Your task to perform on an android device: turn pop-ups on in chrome Image 0: 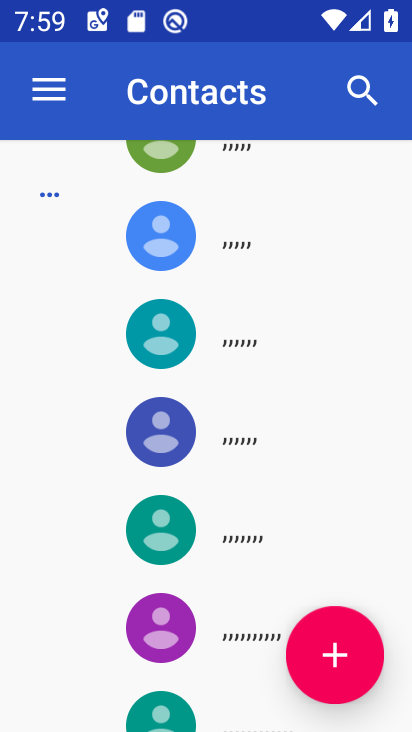
Step 0: press back button
Your task to perform on an android device: turn pop-ups on in chrome Image 1: 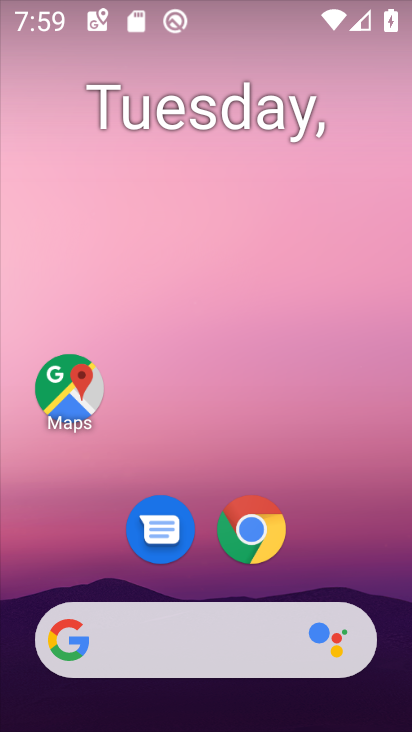
Step 1: click (262, 528)
Your task to perform on an android device: turn pop-ups on in chrome Image 2: 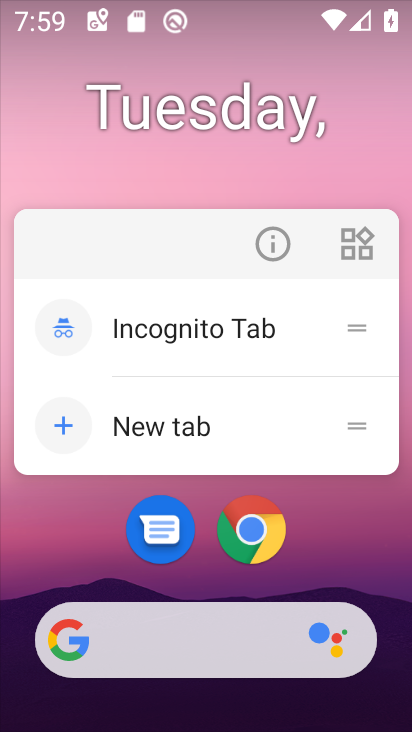
Step 2: click (251, 540)
Your task to perform on an android device: turn pop-ups on in chrome Image 3: 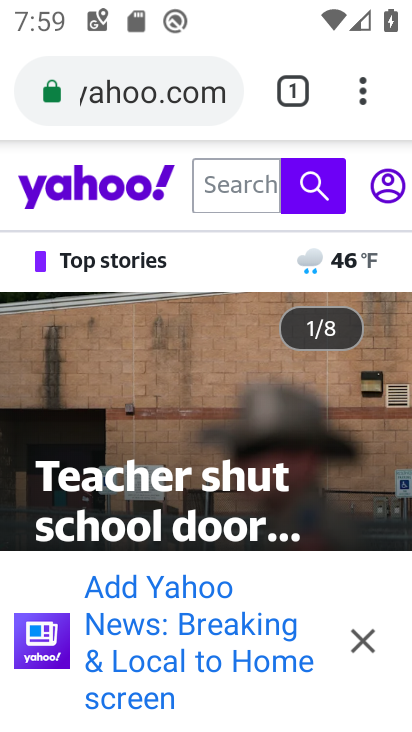
Step 3: drag from (363, 90) to (160, 557)
Your task to perform on an android device: turn pop-ups on in chrome Image 4: 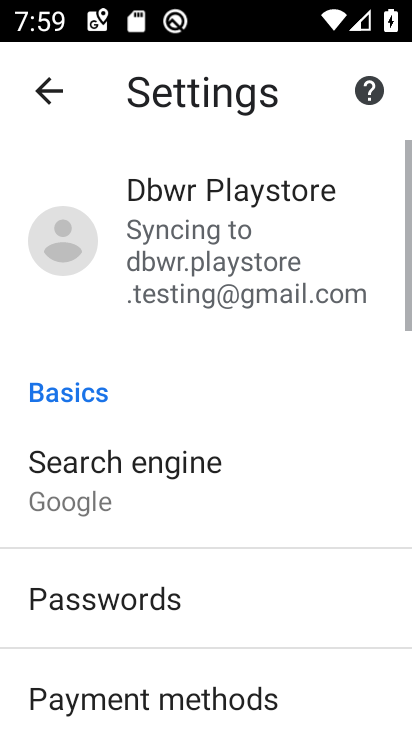
Step 4: drag from (151, 619) to (246, 101)
Your task to perform on an android device: turn pop-ups on in chrome Image 5: 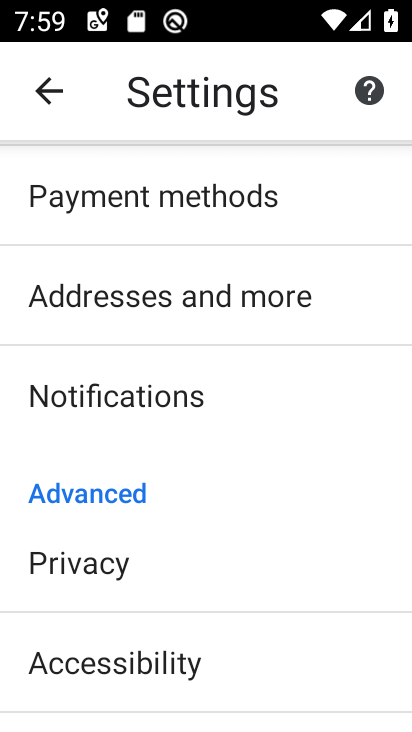
Step 5: drag from (141, 668) to (244, 133)
Your task to perform on an android device: turn pop-ups on in chrome Image 6: 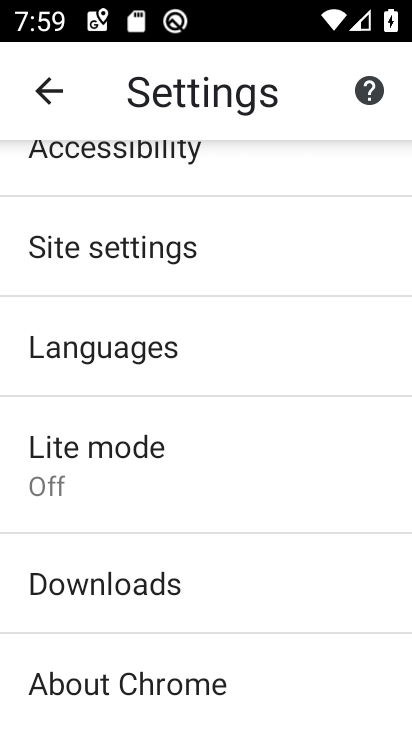
Step 6: click (108, 258)
Your task to perform on an android device: turn pop-ups on in chrome Image 7: 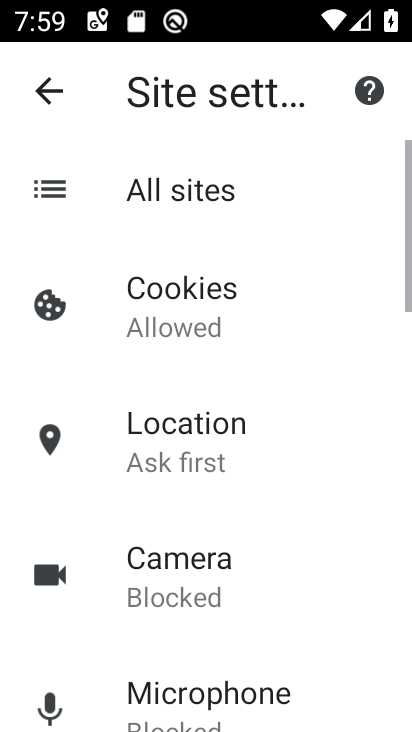
Step 7: drag from (207, 709) to (303, 146)
Your task to perform on an android device: turn pop-ups on in chrome Image 8: 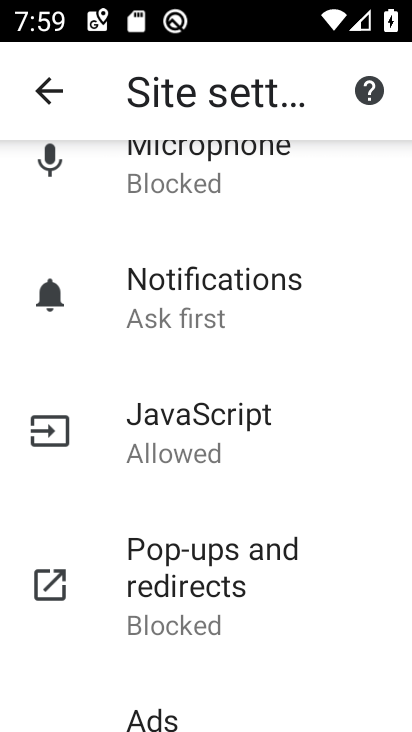
Step 8: click (195, 575)
Your task to perform on an android device: turn pop-ups on in chrome Image 9: 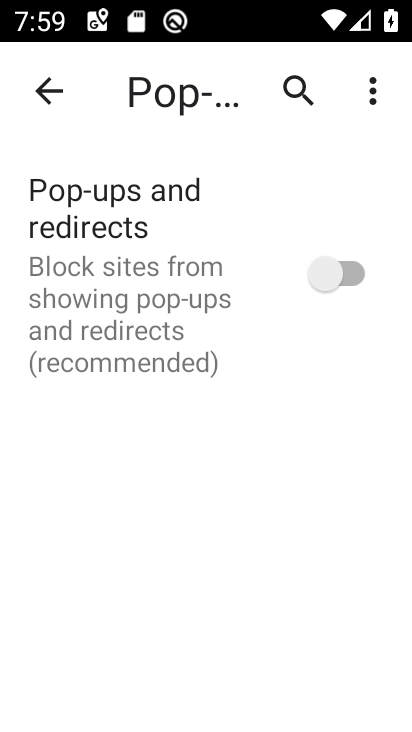
Step 9: click (325, 270)
Your task to perform on an android device: turn pop-ups on in chrome Image 10: 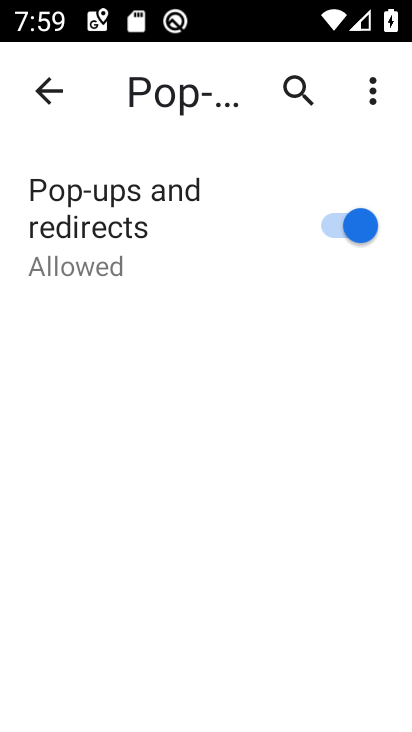
Step 10: task complete